Your task to perform on an android device: Go to Maps Image 0: 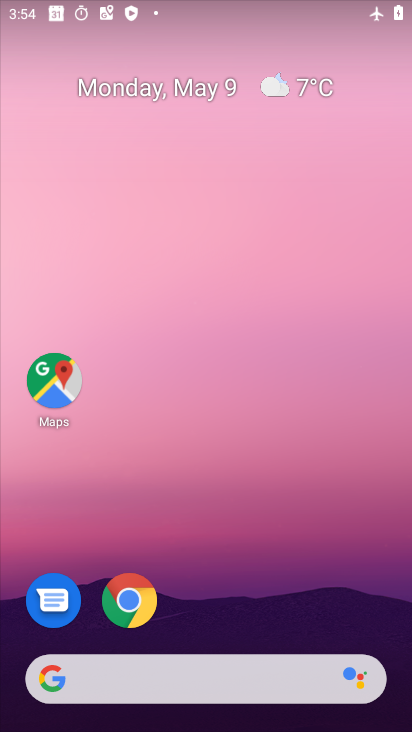
Step 0: click (281, 612)
Your task to perform on an android device: Go to Maps Image 1: 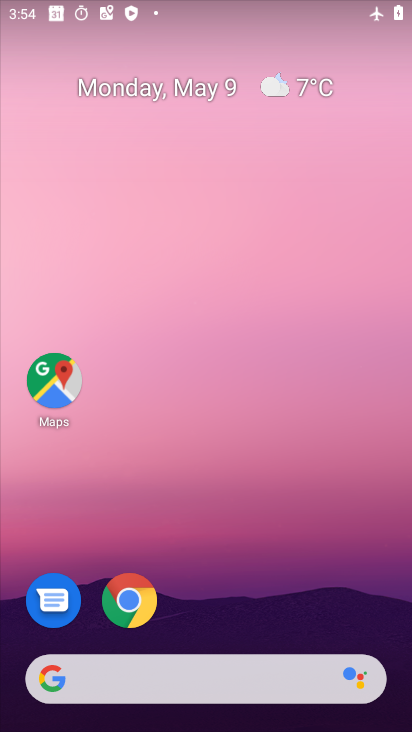
Step 1: click (54, 382)
Your task to perform on an android device: Go to Maps Image 2: 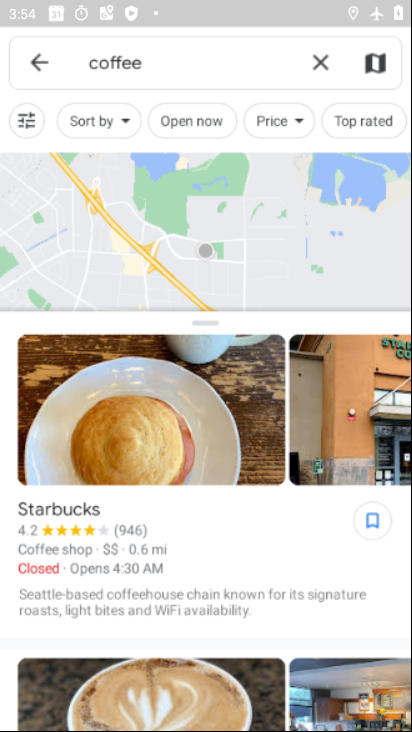
Step 2: task complete